Your task to perform on an android device: Open Google Maps Image 0: 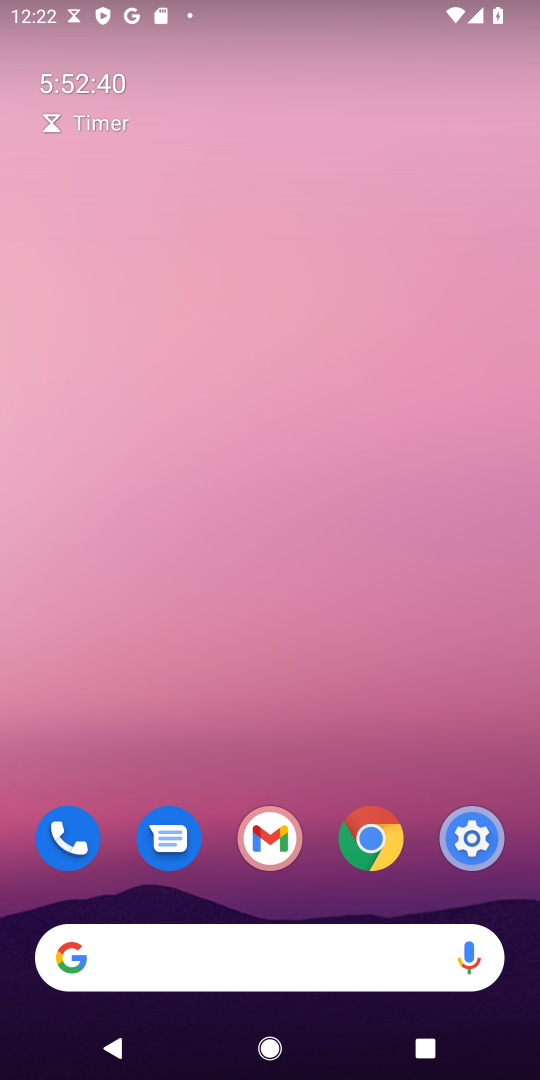
Step 0: drag from (289, 721) to (257, 2)
Your task to perform on an android device: Open Google Maps Image 1: 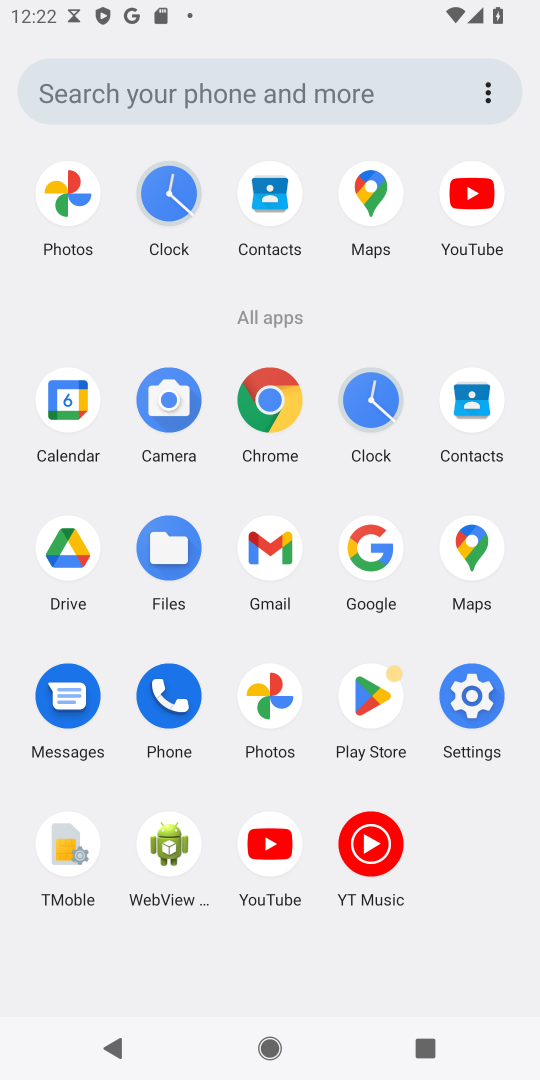
Step 1: click (478, 554)
Your task to perform on an android device: Open Google Maps Image 2: 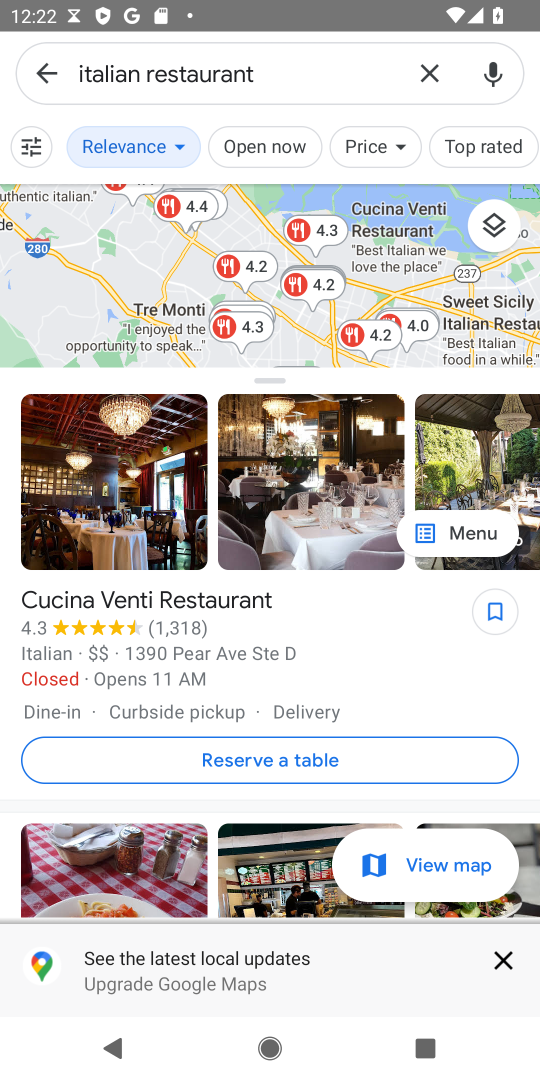
Step 2: task complete